Your task to perform on an android device: turn notification dots on Image 0: 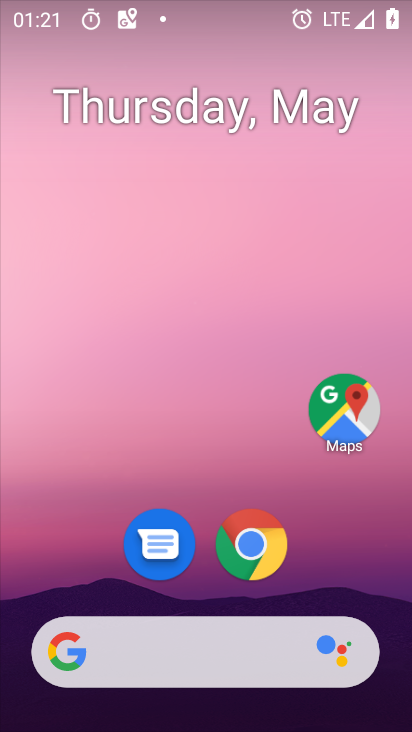
Step 0: drag from (371, 579) to (368, 119)
Your task to perform on an android device: turn notification dots on Image 1: 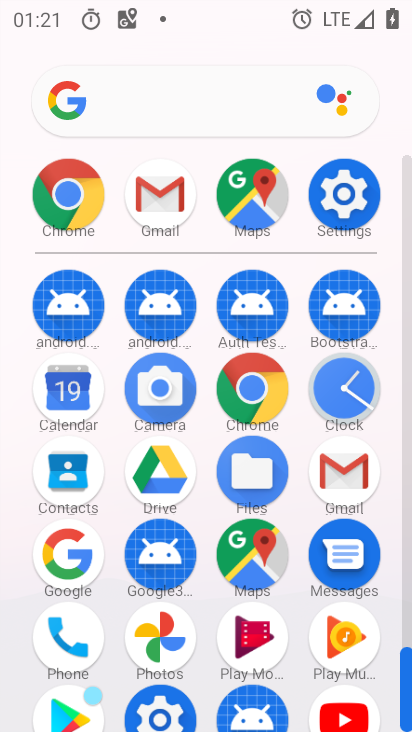
Step 1: click (357, 211)
Your task to perform on an android device: turn notification dots on Image 2: 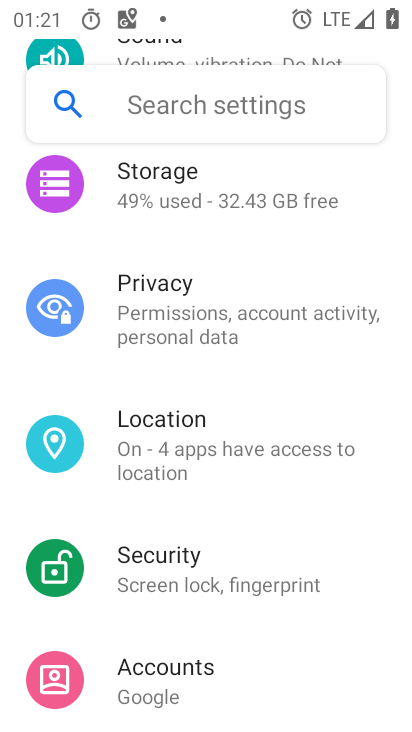
Step 2: drag from (369, 276) to (371, 423)
Your task to perform on an android device: turn notification dots on Image 3: 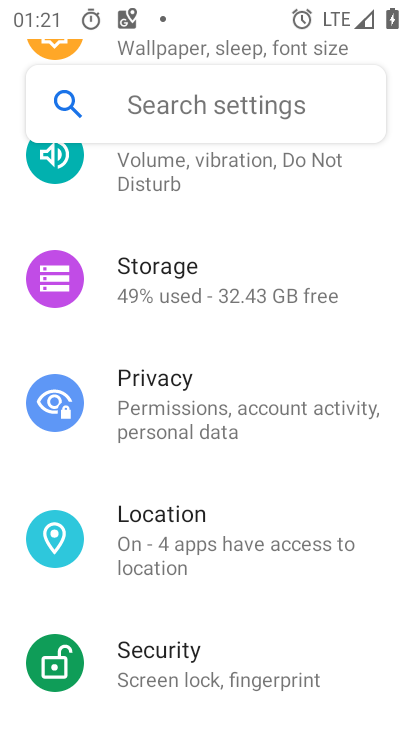
Step 3: drag from (371, 247) to (356, 468)
Your task to perform on an android device: turn notification dots on Image 4: 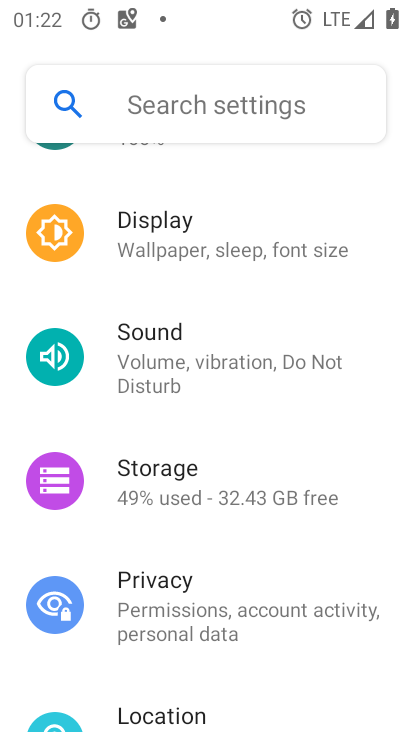
Step 4: drag from (356, 249) to (351, 431)
Your task to perform on an android device: turn notification dots on Image 5: 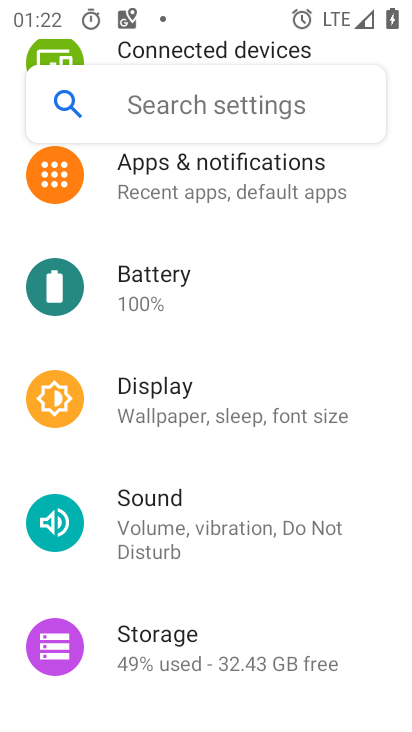
Step 5: drag from (376, 246) to (362, 405)
Your task to perform on an android device: turn notification dots on Image 6: 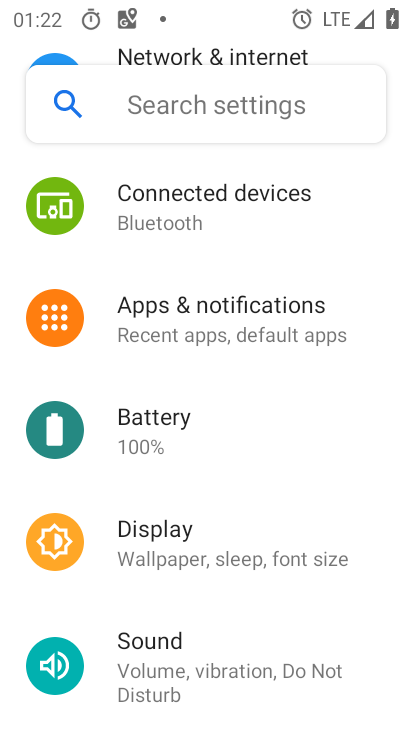
Step 6: drag from (361, 222) to (366, 403)
Your task to perform on an android device: turn notification dots on Image 7: 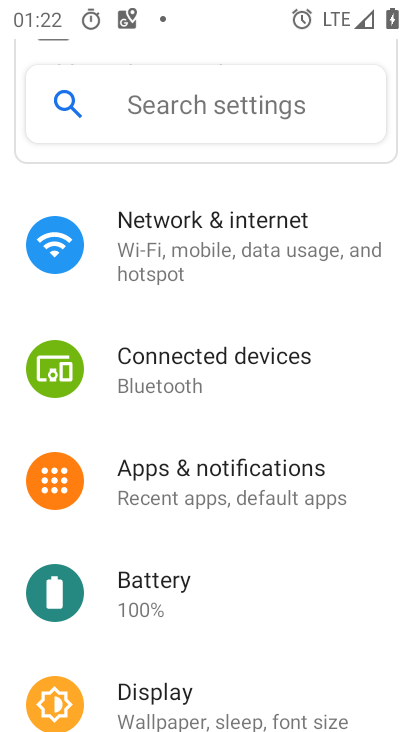
Step 7: drag from (358, 202) to (355, 402)
Your task to perform on an android device: turn notification dots on Image 8: 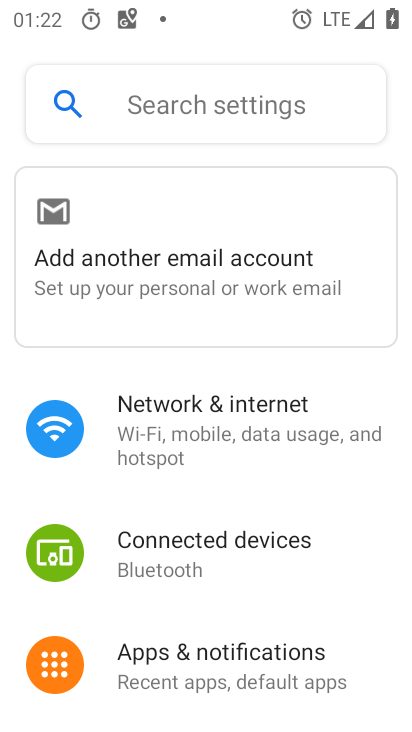
Step 8: drag from (352, 535) to (349, 358)
Your task to perform on an android device: turn notification dots on Image 9: 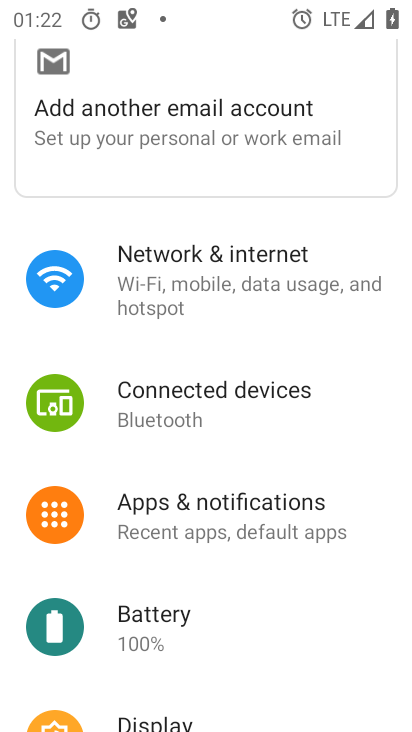
Step 9: drag from (345, 542) to (351, 357)
Your task to perform on an android device: turn notification dots on Image 10: 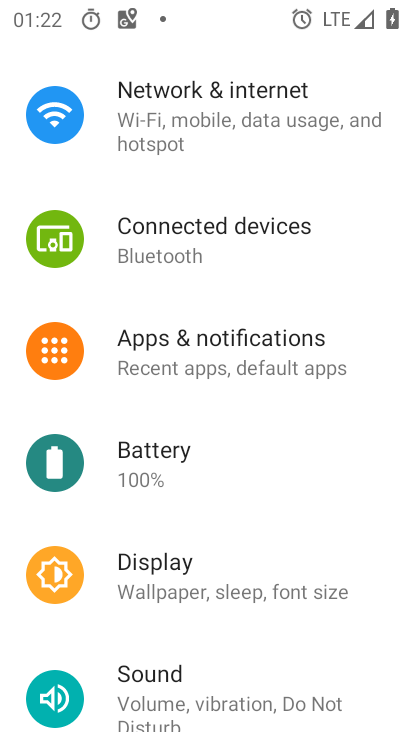
Step 10: drag from (351, 527) to (350, 346)
Your task to perform on an android device: turn notification dots on Image 11: 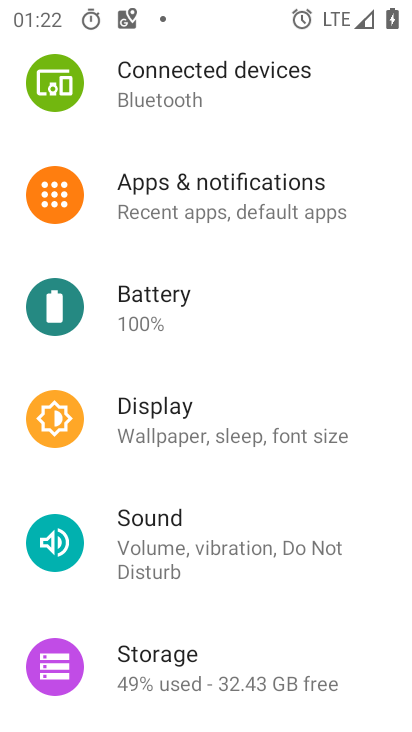
Step 11: drag from (355, 542) to (362, 375)
Your task to perform on an android device: turn notification dots on Image 12: 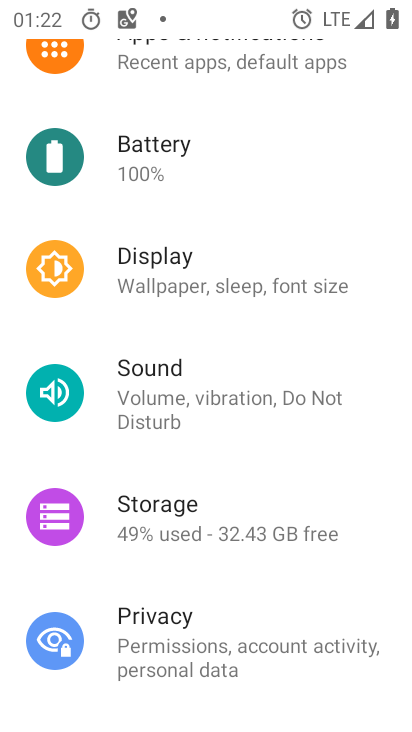
Step 12: drag from (364, 548) to (371, 414)
Your task to perform on an android device: turn notification dots on Image 13: 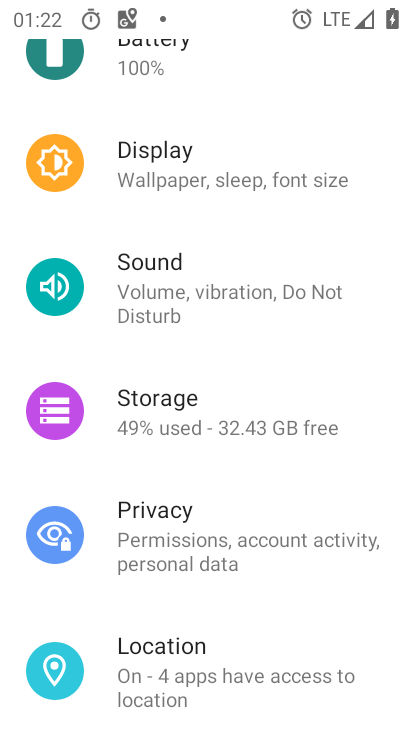
Step 13: drag from (338, 601) to (341, 455)
Your task to perform on an android device: turn notification dots on Image 14: 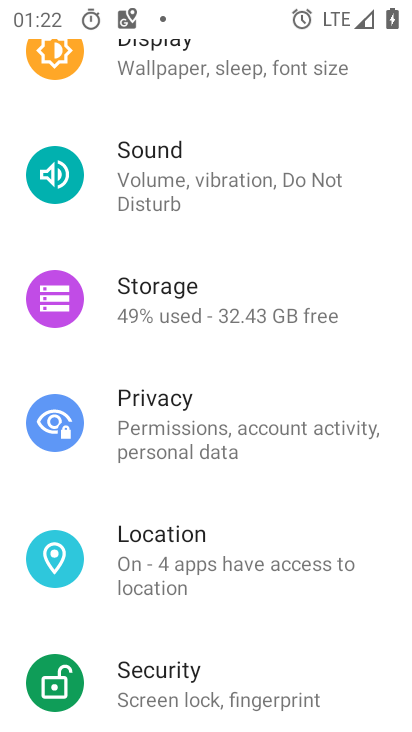
Step 14: drag from (335, 609) to (338, 431)
Your task to perform on an android device: turn notification dots on Image 15: 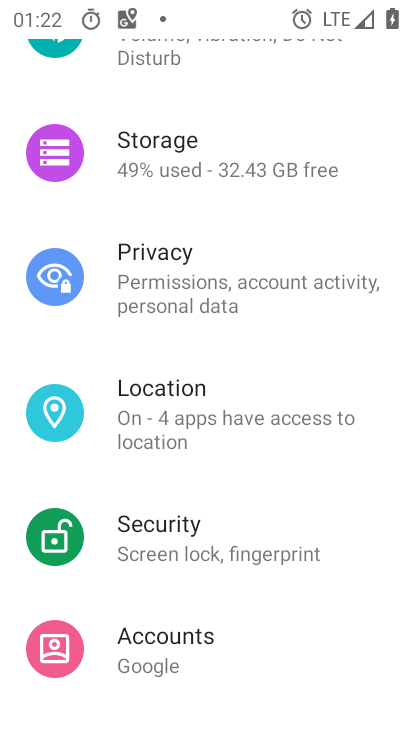
Step 15: drag from (341, 226) to (338, 393)
Your task to perform on an android device: turn notification dots on Image 16: 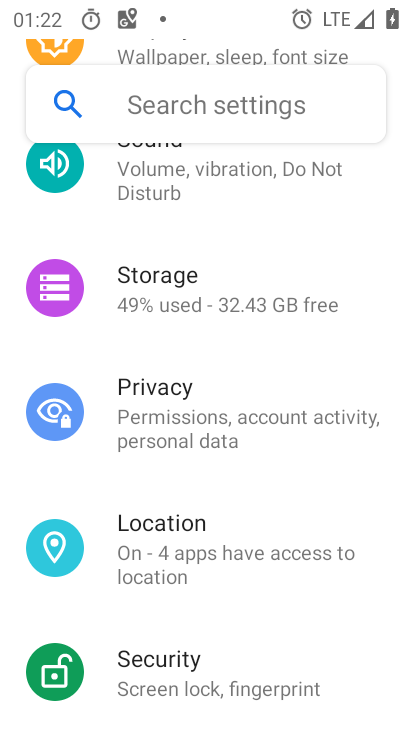
Step 16: drag from (359, 179) to (348, 410)
Your task to perform on an android device: turn notification dots on Image 17: 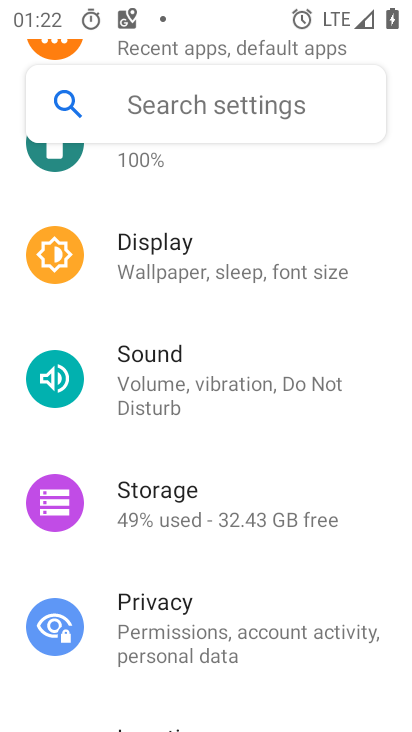
Step 17: drag from (347, 188) to (356, 396)
Your task to perform on an android device: turn notification dots on Image 18: 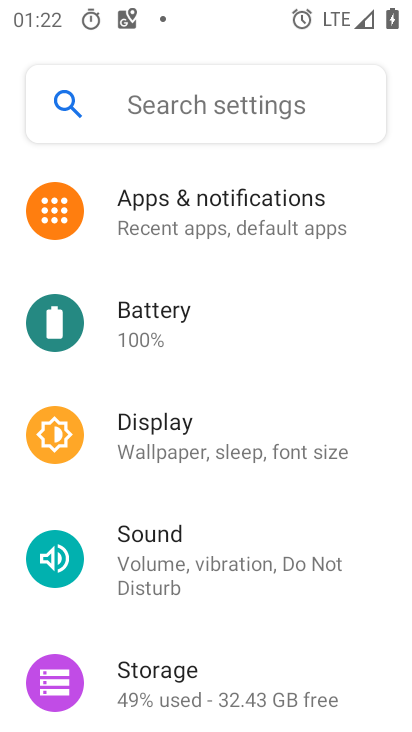
Step 18: click (296, 219)
Your task to perform on an android device: turn notification dots on Image 19: 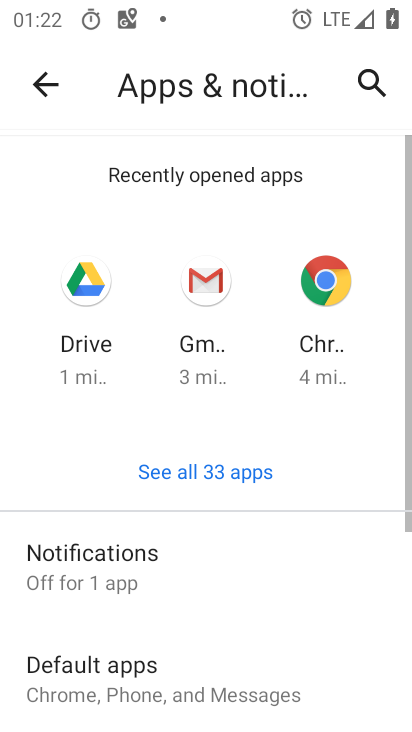
Step 19: drag from (305, 526) to (299, 343)
Your task to perform on an android device: turn notification dots on Image 20: 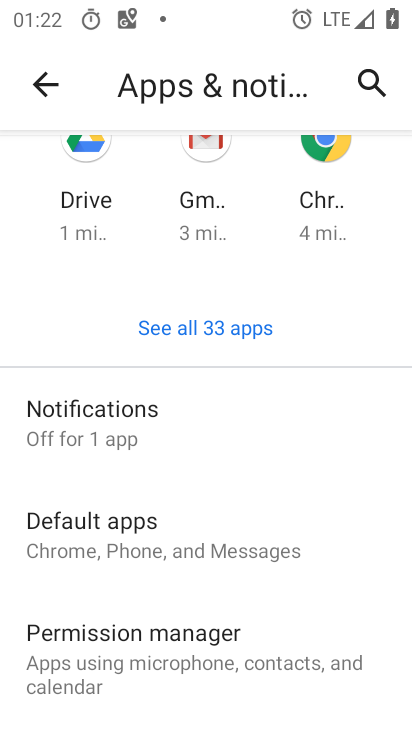
Step 20: drag from (311, 577) to (319, 339)
Your task to perform on an android device: turn notification dots on Image 21: 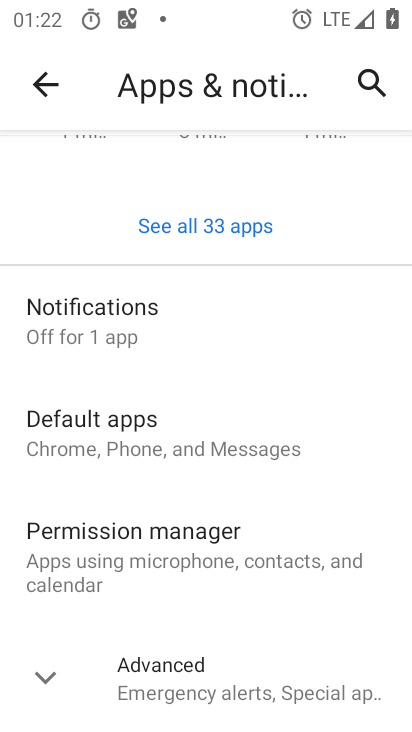
Step 21: click (212, 689)
Your task to perform on an android device: turn notification dots on Image 22: 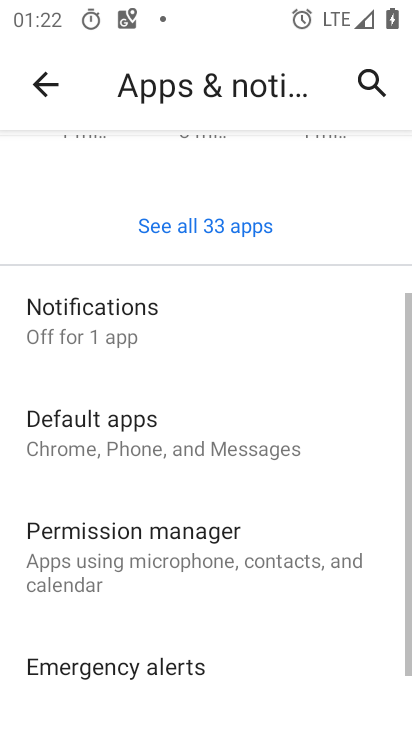
Step 22: click (99, 309)
Your task to perform on an android device: turn notification dots on Image 23: 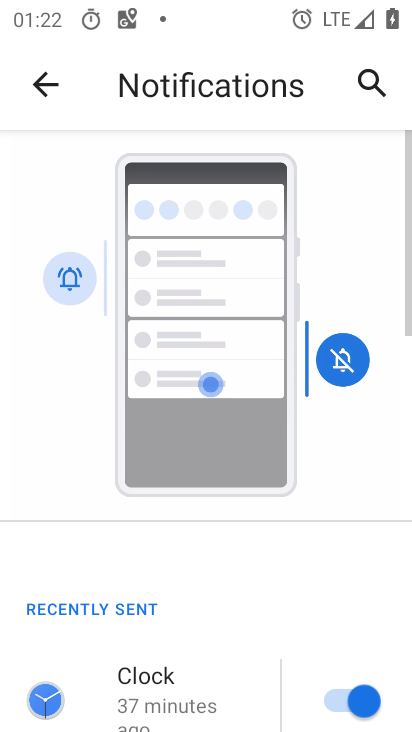
Step 23: drag from (254, 623) to (257, 349)
Your task to perform on an android device: turn notification dots on Image 24: 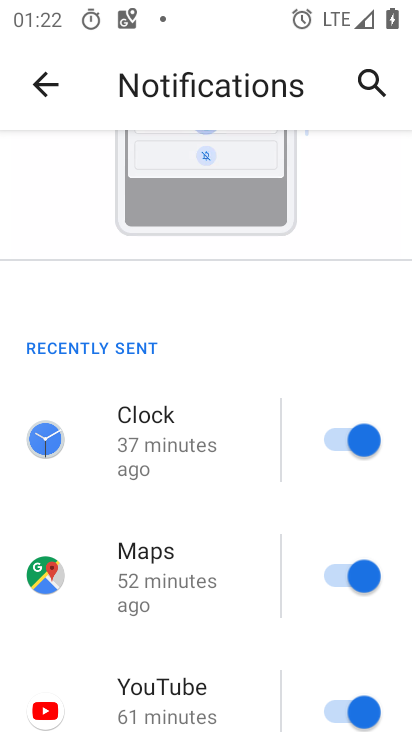
Step 24: drag from (235, 596) to (241, 405)
Your task to perform on an android device: turn notification dots on Image 25: 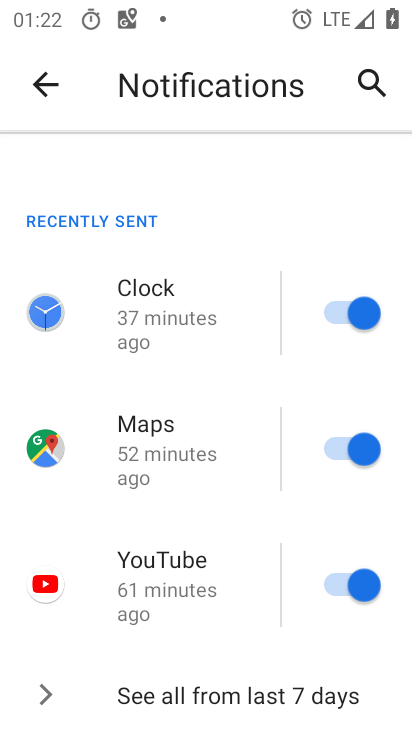
Step 25: drag from (263, 607) to (260, 408)
Your task to perform on an android device: turn notification dots on Image 26: 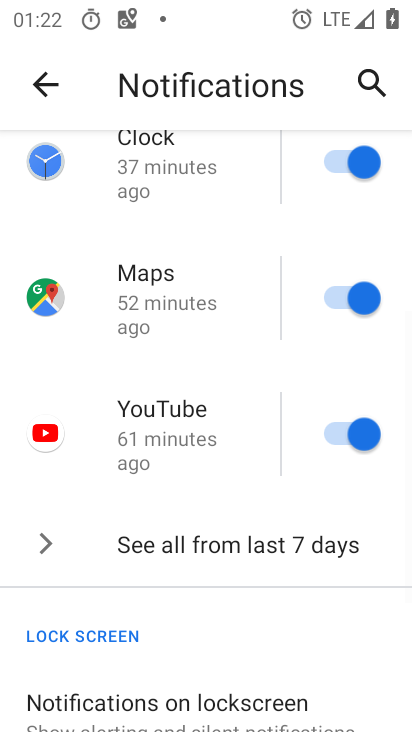
Step 26: drag from (242, 646) to (253, 389)
Your task to perform on an android device: turn notification dots on Image 27: 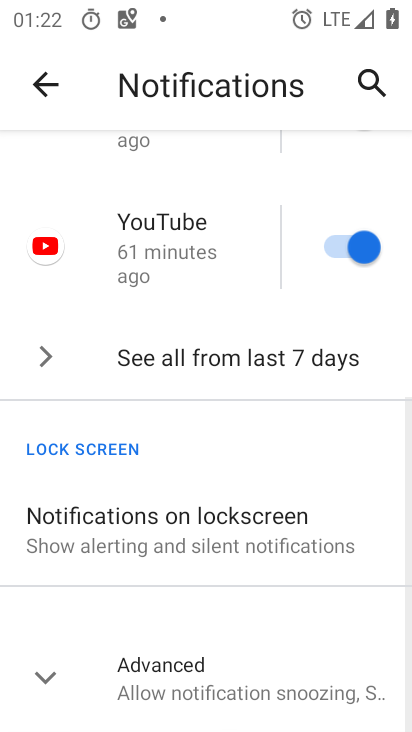
Step 27: click (255, 671)
Your task to perform on an android device: turn notification dots on Image 28: 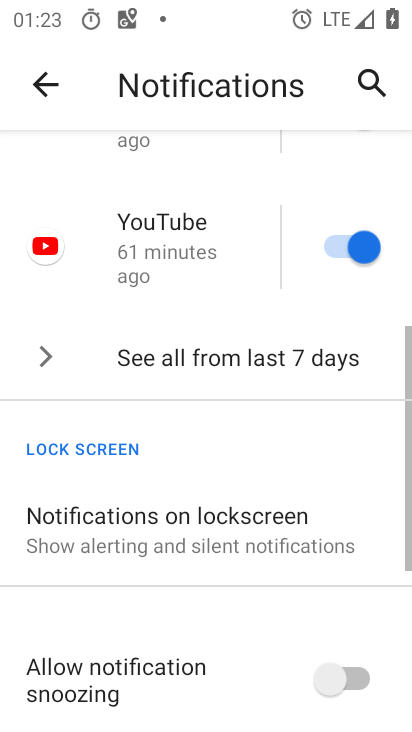
Step 28: task complete